Your task to perform on an android device: install app "Fetch Rewards" Image 0: 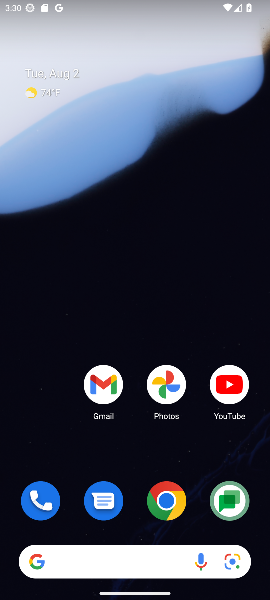
Step 0: drag from (148, 429) to (122, 43)
Your task to perform on an android device: install app "Fetch Rewards" Image 1: 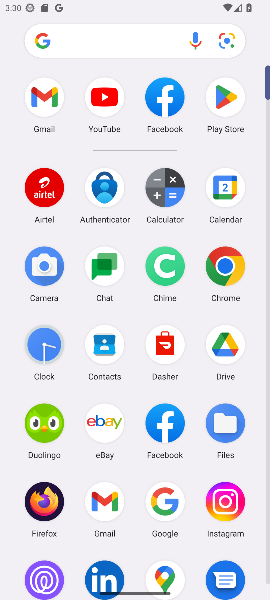
Step 1: click (230, 98)
Your task to perform on an android device: install app "Fetch Rewards" Image 2: 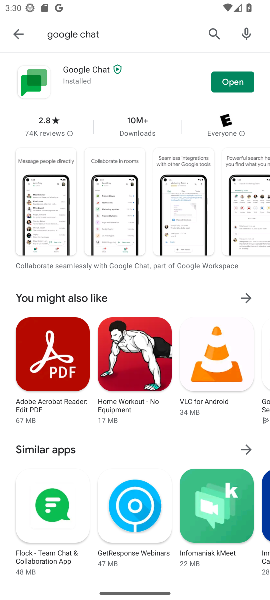
Step 2: click (213, 33)
Your task to perform on an android device: install app "Fetch Rewards" Image 3: 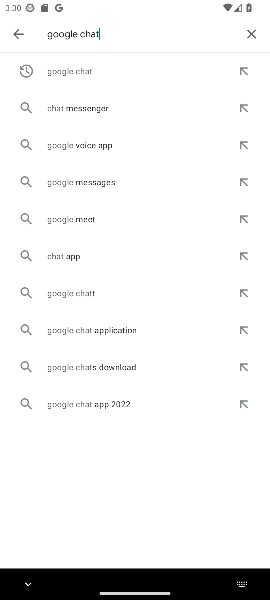
Step 3: click (250, 41)
Your task to perform on an android device: install app "Fetch Rewards" Image 4: 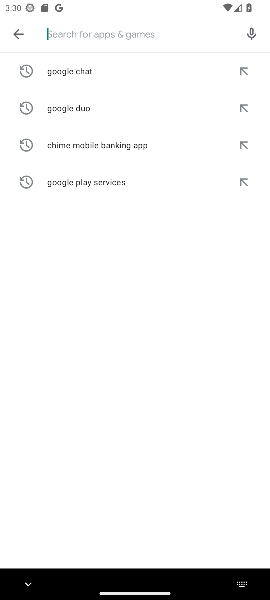
Step 4: type "Fetch Rewards"
Your task to perform on an android device: install app "Fetch Rewards" Image 5: 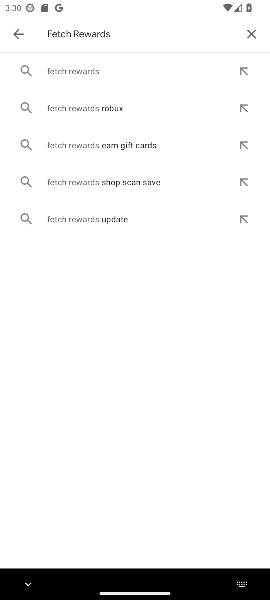
Step 5: click (44, 75)
Your task to perform on an android device: install app "Fetch Rewards" Image 6: 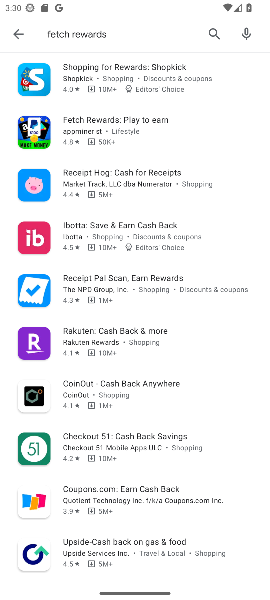
Step 6: click (54, 138)
Your task to perform on an android device: install app "Fetch Rewards" Image 7: 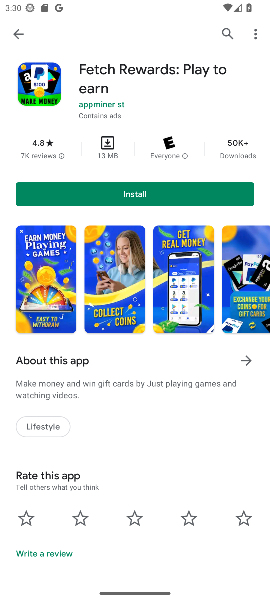
Step 7: click (116, 194)
Your task to perform on an android device: install app "Fetch Rewards" Image 8: 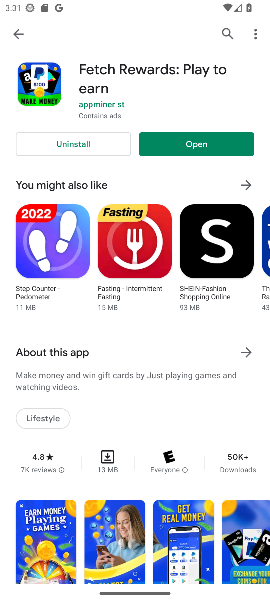
Step 8: task complete